Your task to perform on an android device: Check the weather Image 0: 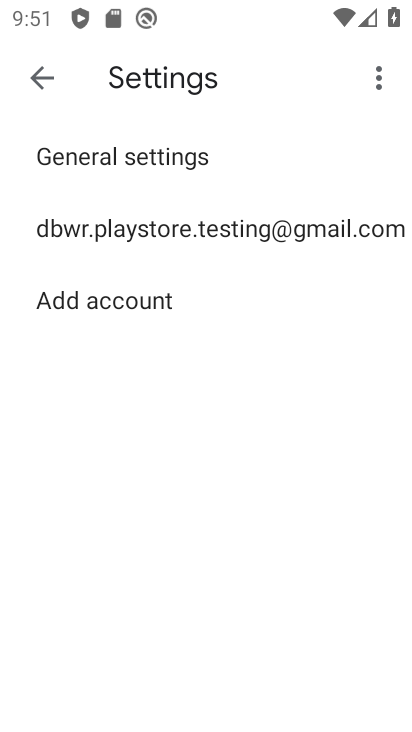
Step 0: press home button
Your task to perform on an android device: Check the weather Image 1: 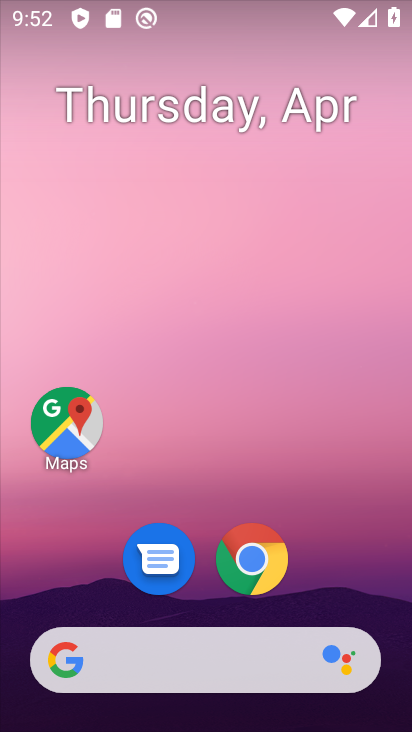
Step 1: drag from (26, 266) to (406, 279)
Your task to perform on an android device: Check the weather Image 2: 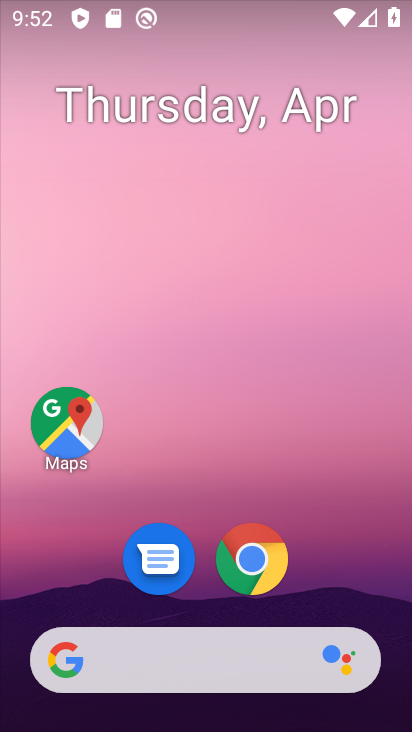
Step 2: drag from (10, 216) to (411, 216)
Your task to perform on an android device: Check the weather Image 3: 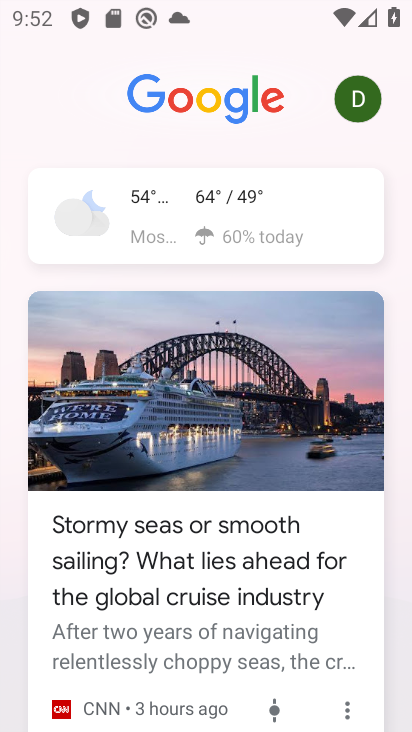
Step 3: click (224, 191)
Your task to perform on an android device: Check the weather Image 4: 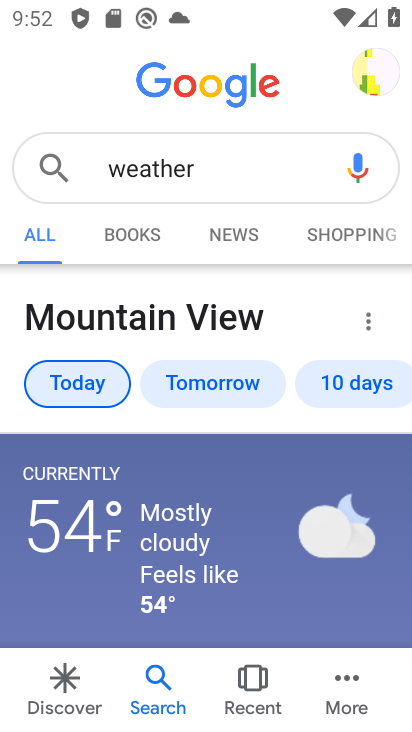
Step 4: task complete